Your task to perform on an android device: turn off wifi Image 0: 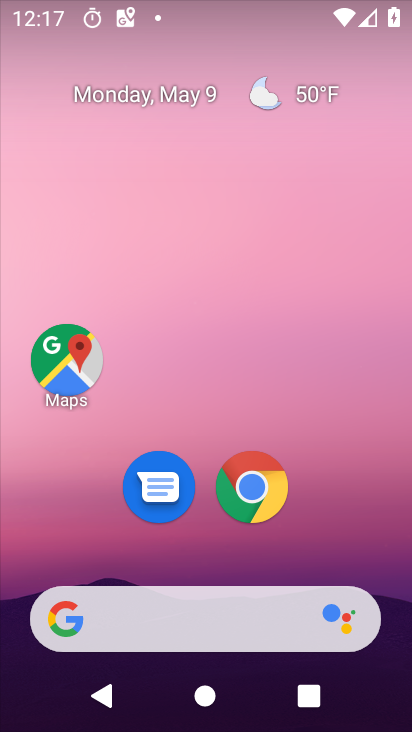
Step 0: drag from (331, 501) to (362, 63)
Your task to perform on an android device: turn off wifi Image 1: 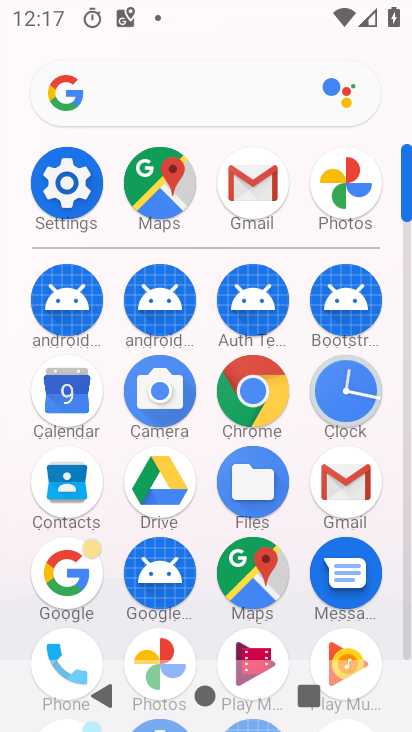
Step 1: click (72, 190)
Your task to perform on an android device: turn off wifi Image 2: 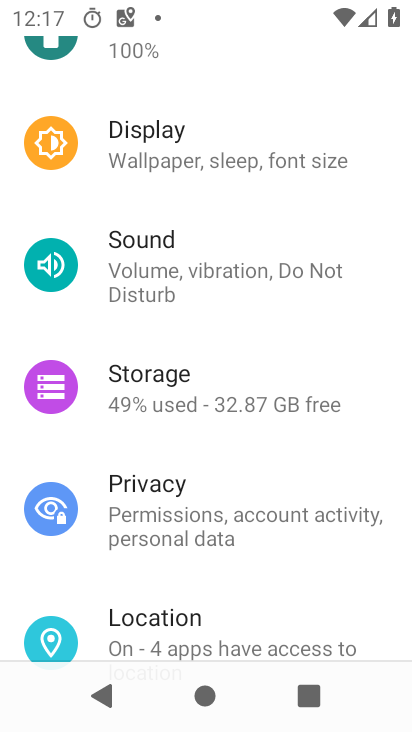
Step 2: drag from (199, 171) to (165, 612)
Your task to perform on an android device: turn off wifi Image 3: 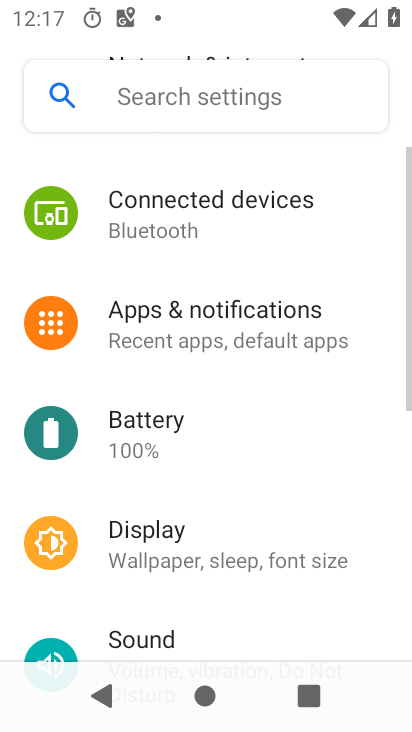
Step 3: drag from (207, 287) to (212, 590)
Your task to perform on an android device: turn off wifi Image 4: 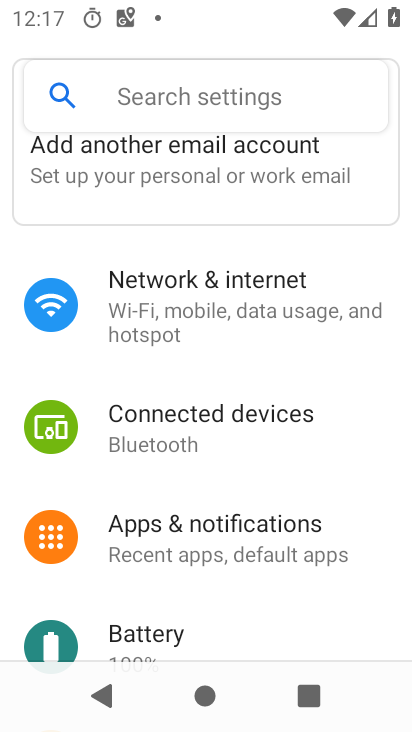
Step 4: click (212, 323)
Your task to perform on an android device: turn off wifi Image 5: 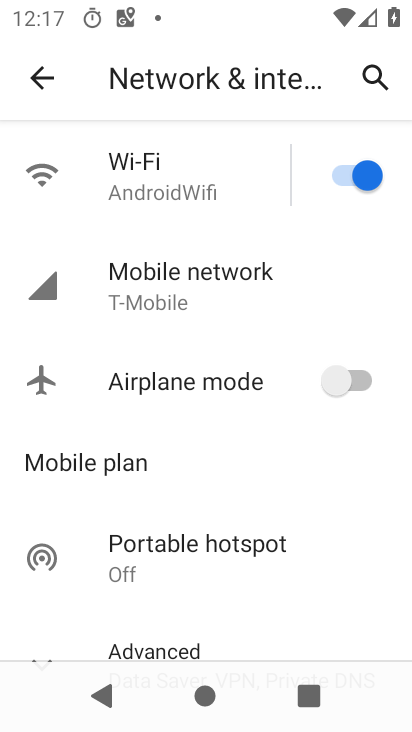
Step 5: click (367, 181)
Your task to perform on an android device: turn off wifi Image 6: 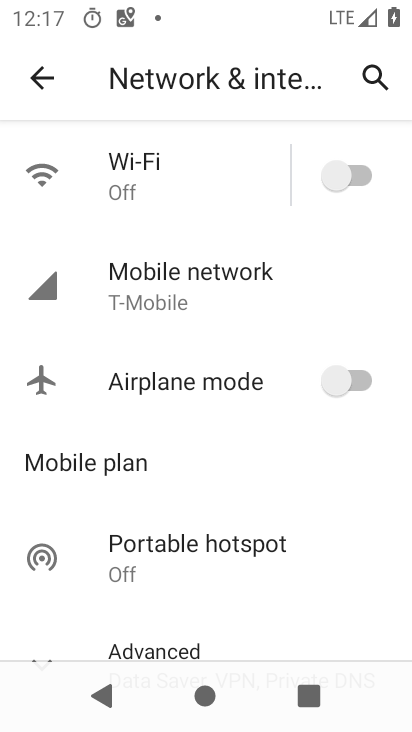
Step 6: task complete